Your task to perform on an android device: check data usage Image 0: 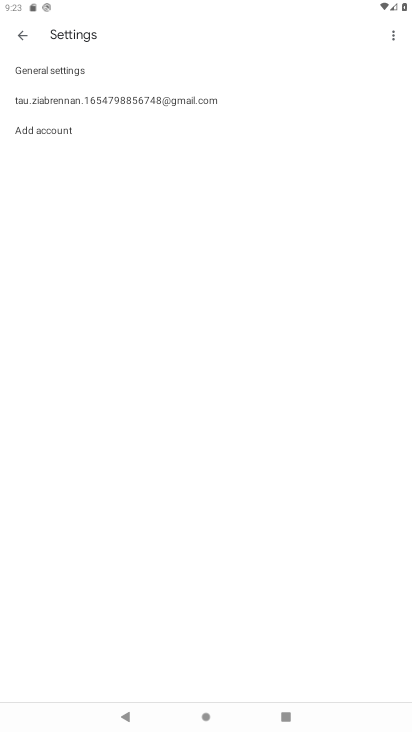
Step 0: press home button
Your task to perform on an android device: check data usage Image 1: 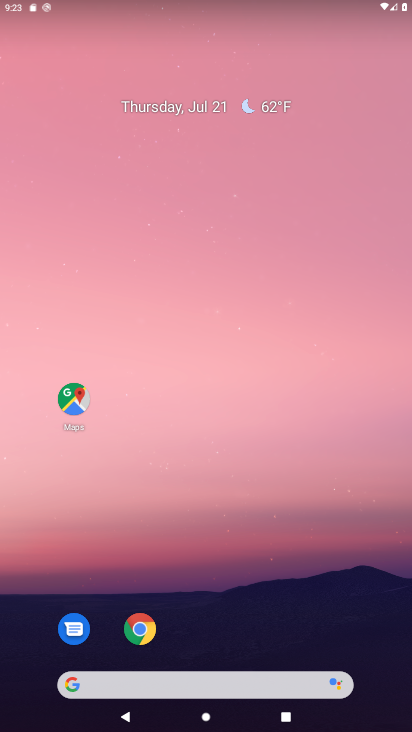
Step 1: drag from (226, 667) to (224, 269)
Your task to perform on an android device: check data usage Image 2: 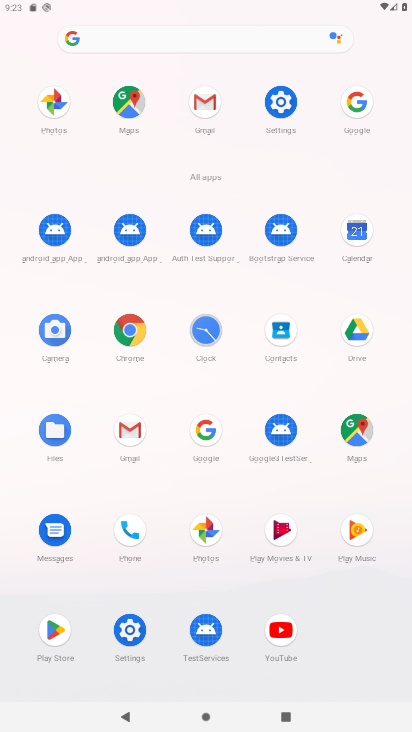
Step 2: click (277, 100)
Your task to perform on an android device: check data usage Image 3: 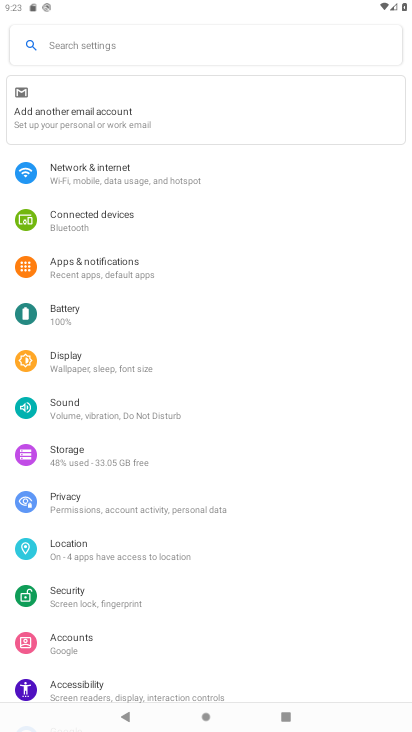
Step 3: click (109, 169)
Your task to perform on an android device: check data usage Image 4: 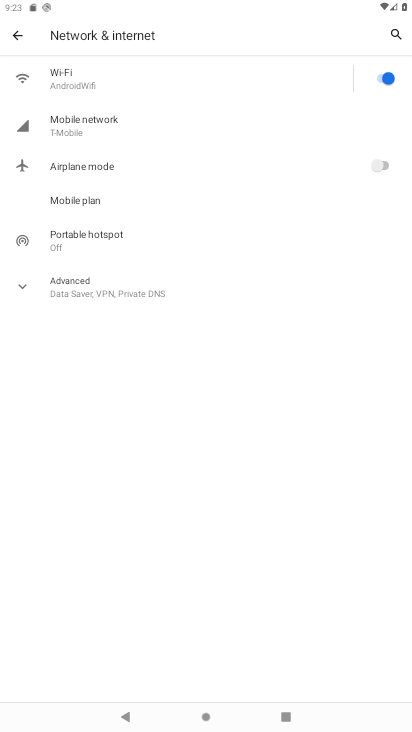
Step 4: click (106, 135)
Your task to perform on an android device: check data usage Image 5: 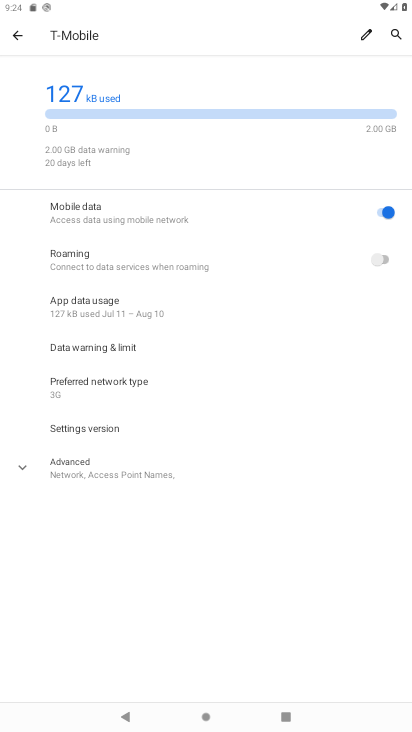
Step 5: task complete